Your task to perform on an android device: toggle location history Image 0: 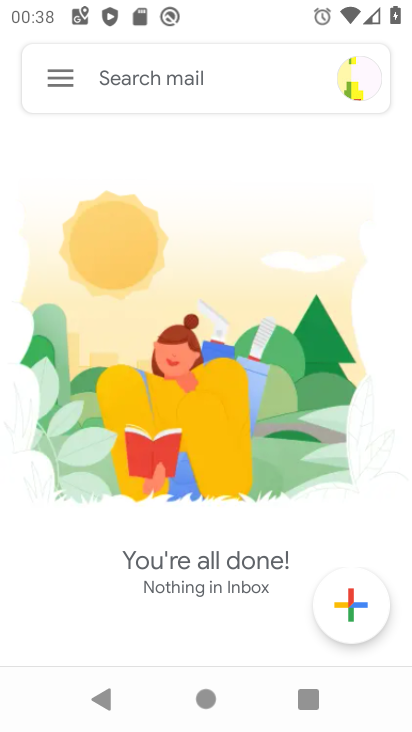
Step 0: press home button
Your task to perform on an android device: toggle location history Image 1: 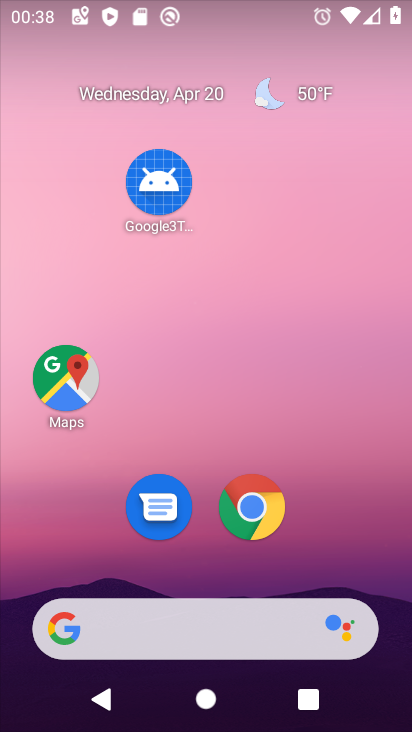
Step 1: drag from (190, 553) to (358, 20)
Your task to perform on an android device: toggle location history Image 2: 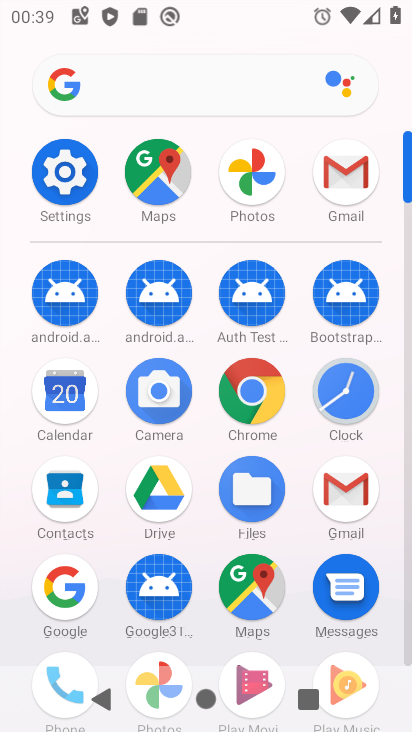
Step 2: click (239, 582)
Your task to perform on an android device: toggle location history Image 3: 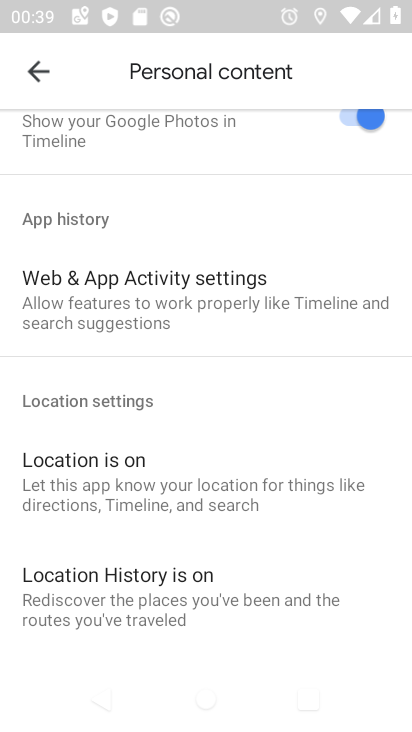
Step 3: click (127, 571)
Your task to perform on an android device: toggle location history Image 4: 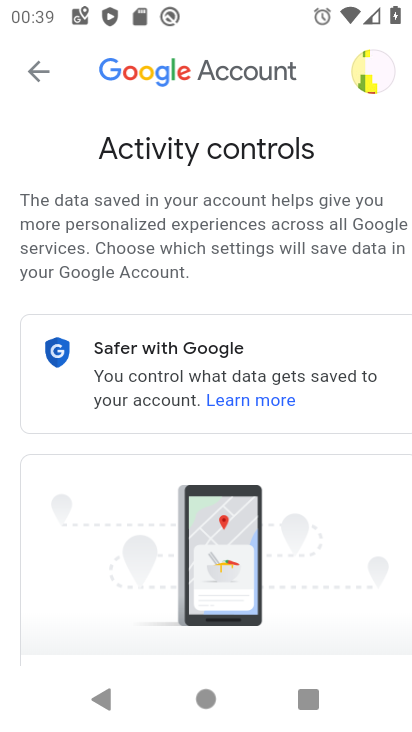
Step 4: drag from (123, 572) to (101, 92)
Your task to perform on an android device: toggle location history Image 5: 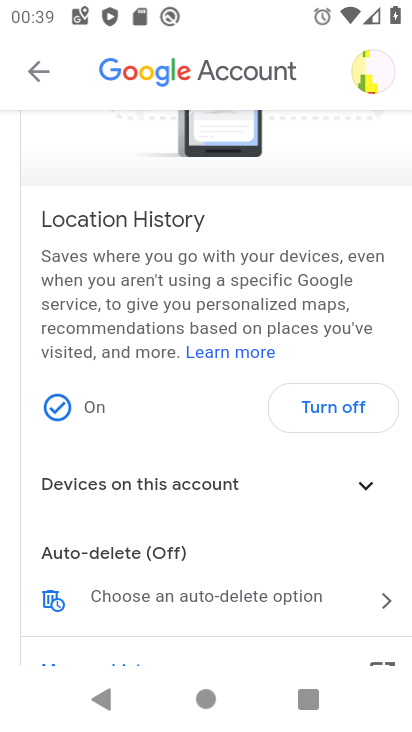
Step 5: click (340, 402)
Your task to perform on an android device: toggle location history Image 6: 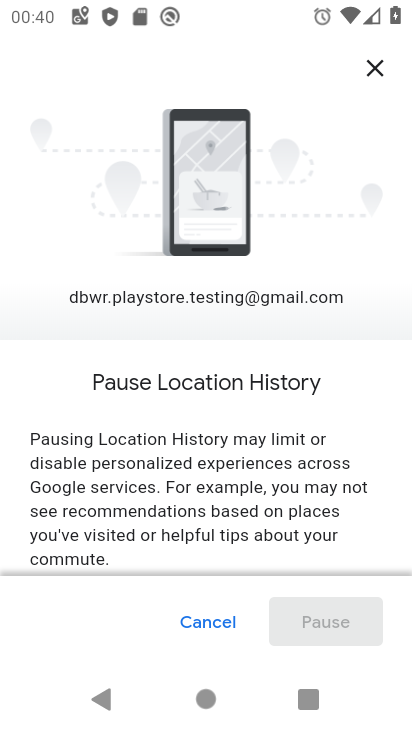
Step 6: drag from (300, 555) to (280, 151)
Your task to perform on an android device: toggle location history Image 7: 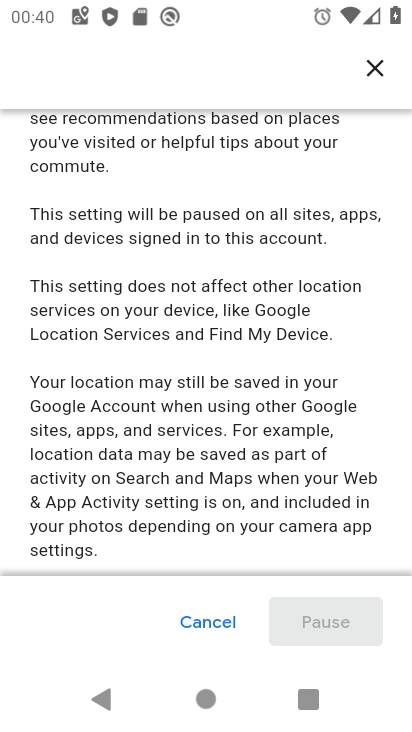
Step 7: drag from (263, 491) to (243, 175)
Your task to perform on an android device: toggle location history Image 8: 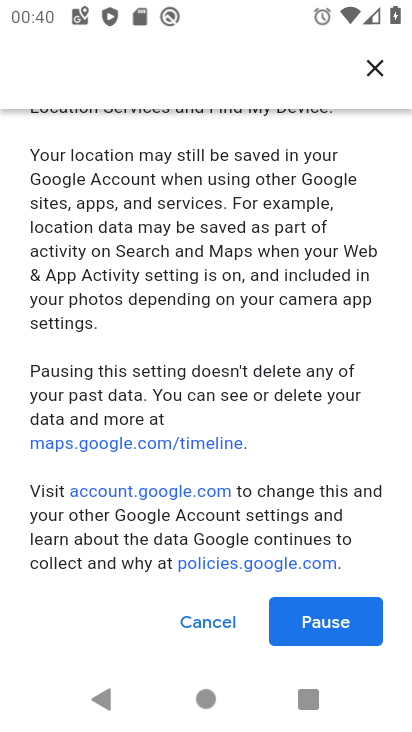
Step 8: drag from (248, 242) to (267, 36)
Your task to perform on an android device: toggle location history Image 9: 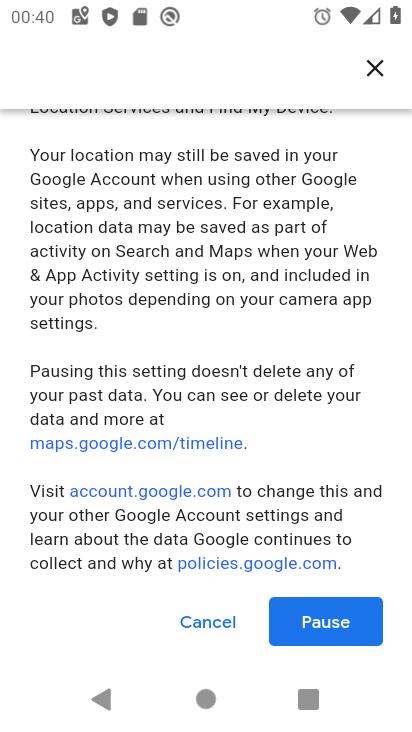
Step 9: drag from (225, 410) to (171, 79)
Your task to perform on an android device: toggle location history Image 10: 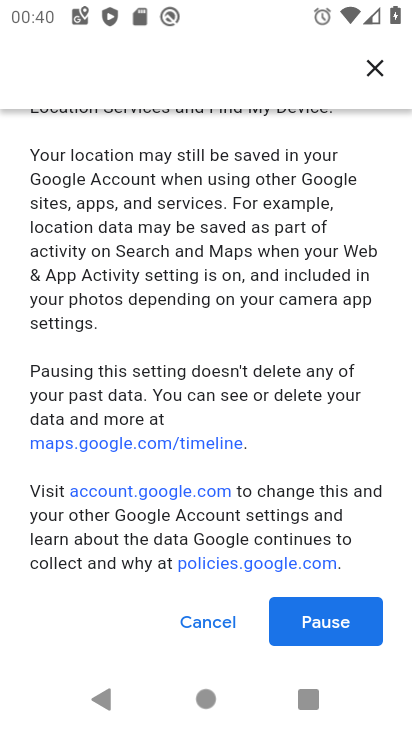
Step 10: click (306, 618)
Your task to perform on an android device: toggle location history Image 11: 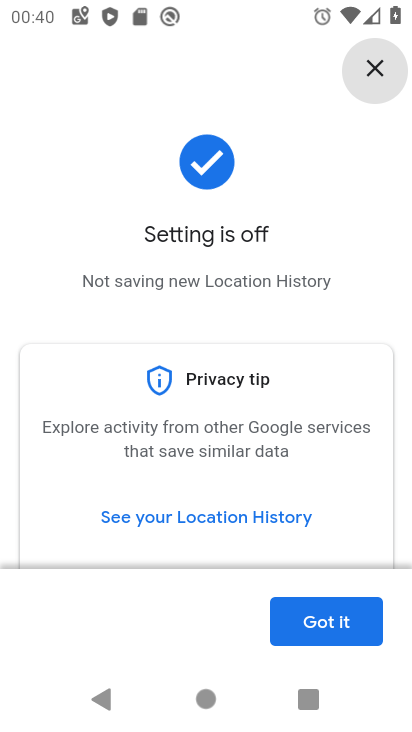
Step 11: click (328, 625)
Your task to perform on an android device: toggle location history Image 12: 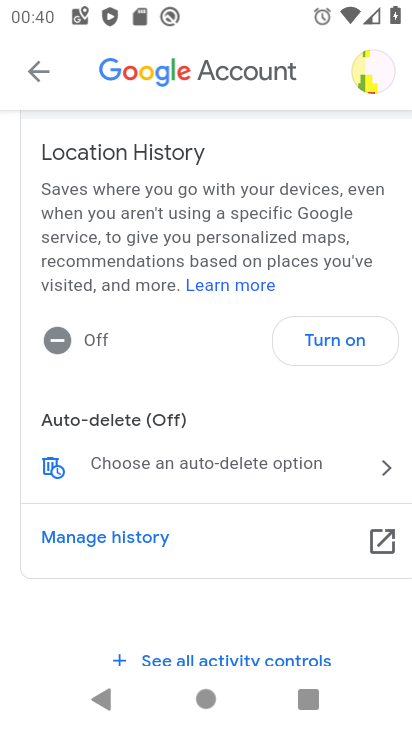
Step 12: task complete